Your task to perform on an android device: Open the calendar app, open the side menu, and click the "Day" option Image 0: 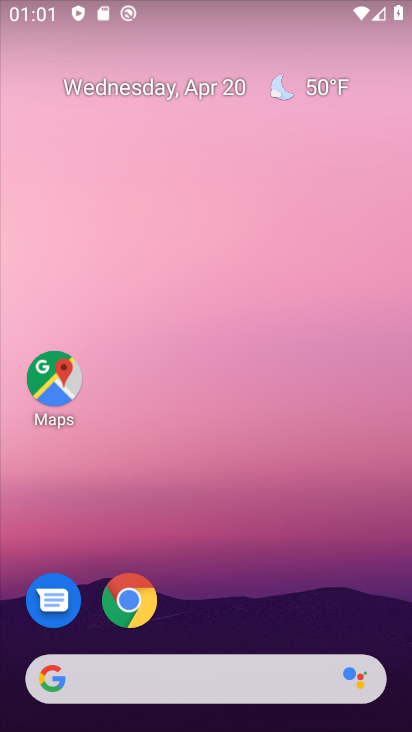
Step 0: drag from (232, 573) to (262, 84)
Your task to perform on an android device: Open the calendar app, open the side menu, and click the "Day" option Image 1: 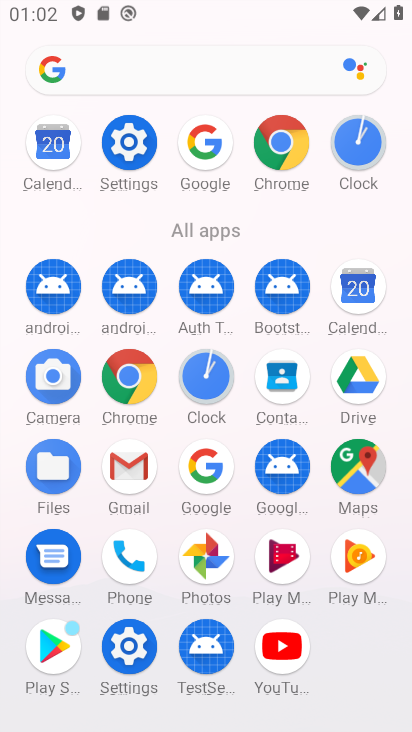
Step 1: click (49, 148)
Your task to perform on an android device: Open the calendar app, open the side menu, and click the "Day" option Image 2: 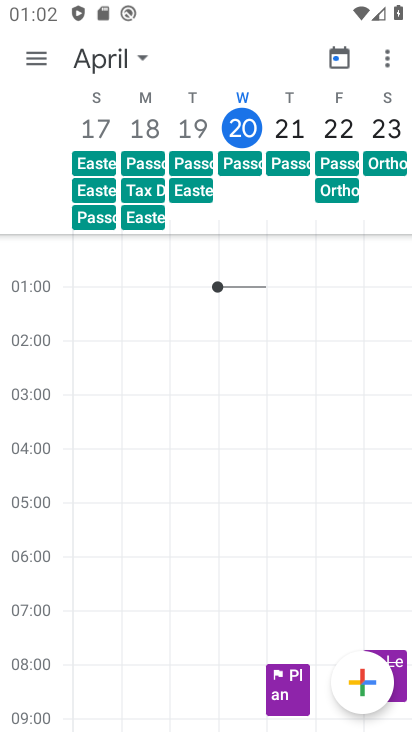
Step 2: click (47, 58)
Your task to perform on an android device: Open the calendar app, open the side menu, and click the "Day" option Image 3: 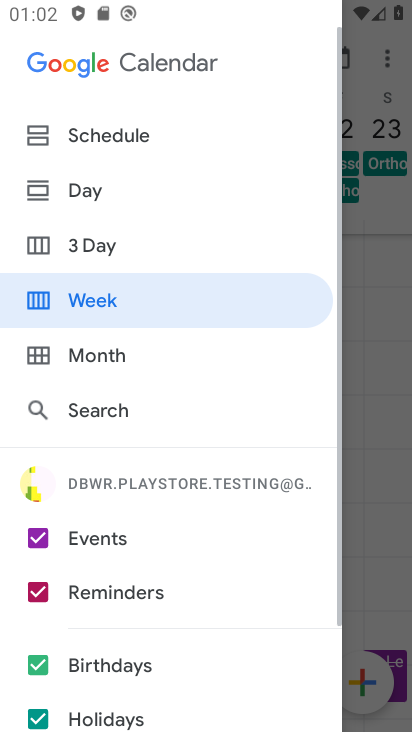
Step 3: click (116, 197)
Your task to perform on an android device: Open the calendar app, open the side menu, and click the "Day" option Image 4: 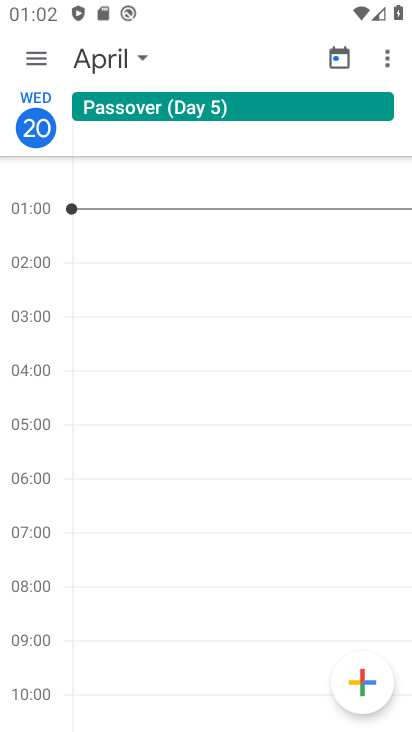
Step 4: task complete